Your task to perform on an android device: allow notifications from all sites in the chrome app Image 0: 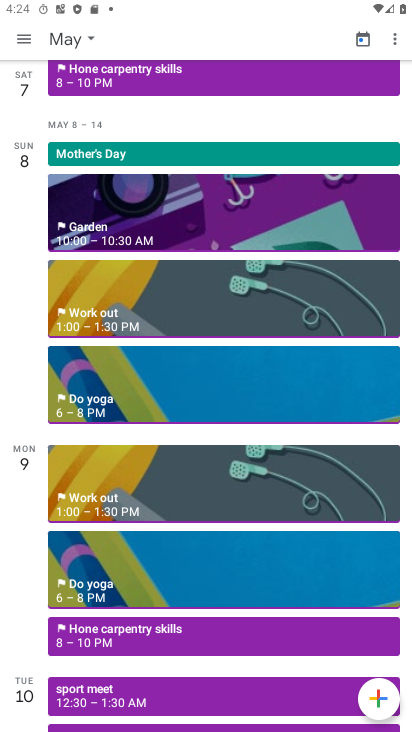
Step 0: press home button
Your task to perform on an android device: allow notifications from all sites in the chrome app Image 1: 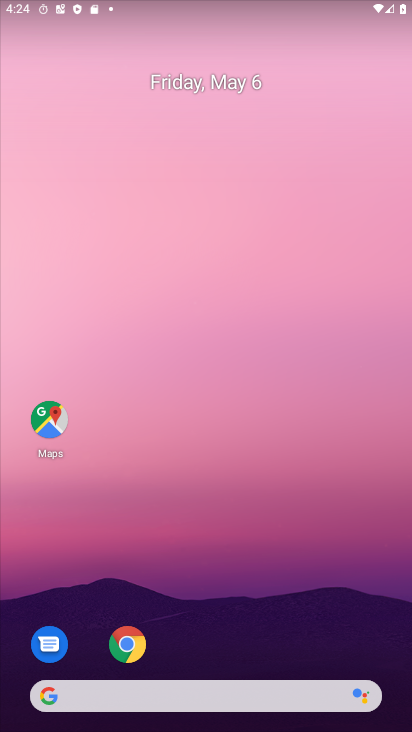
Step 1: drag from (339, 639) to (143, 103)
Your task to perform on an android device: allow notifications from all sites in the chrome app Image 2: 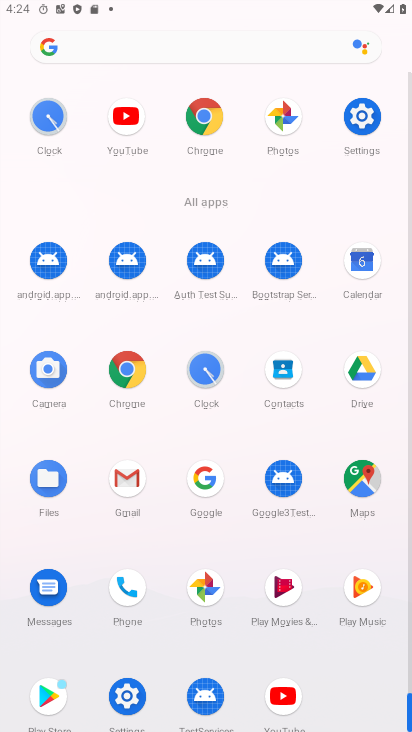
Step 2: click (197, 121)
Your task to perform on an android device: allow notifications from all sites in the chrome app Image 3: 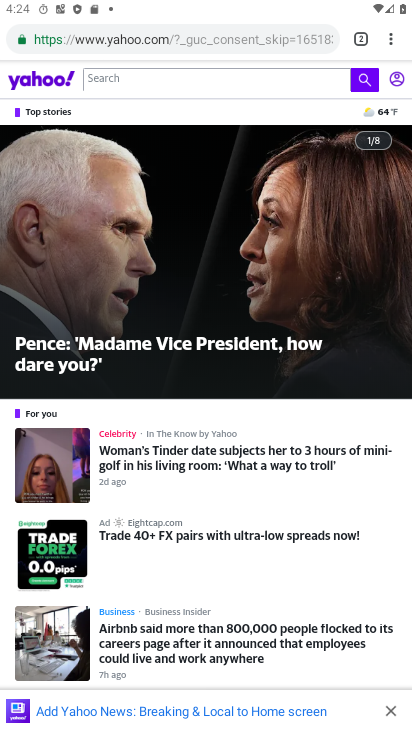
Step 3: drag from (391, 38) to (244, 504)
Your task to perform on an android device: allow notifications from all sites in the chrome app Image 4: 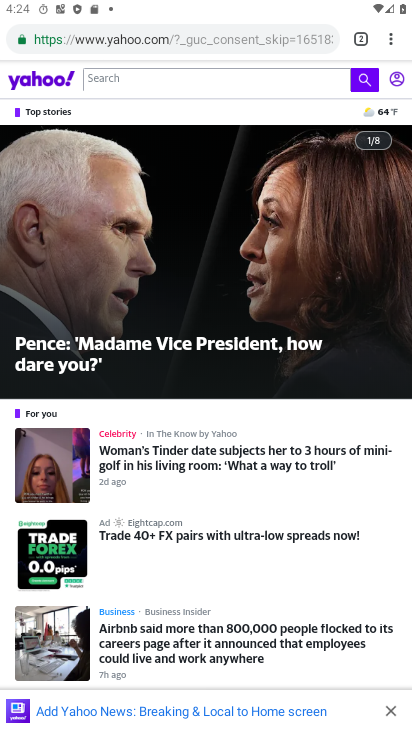
Step 4: click (241, 503)
Your task to perform on an android device: allow notifications from all sites in the chrome app Image 5: 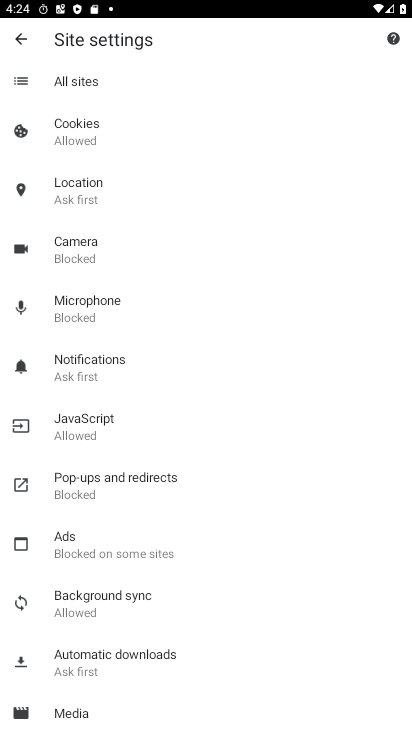
Step 5: click (69, 69)
Your task to perform on an android device: allow notifications from all sites in the chrome app Image 6: 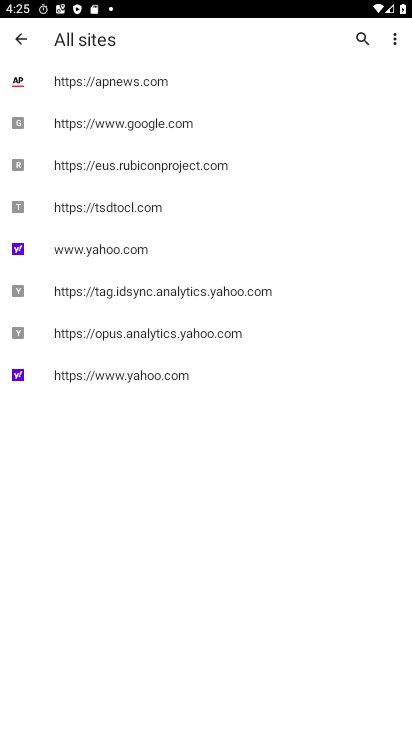
Step 6: click (87, 72)
Your task to perform on an android device: allow notifications from all sites in the chrome app Image 7: 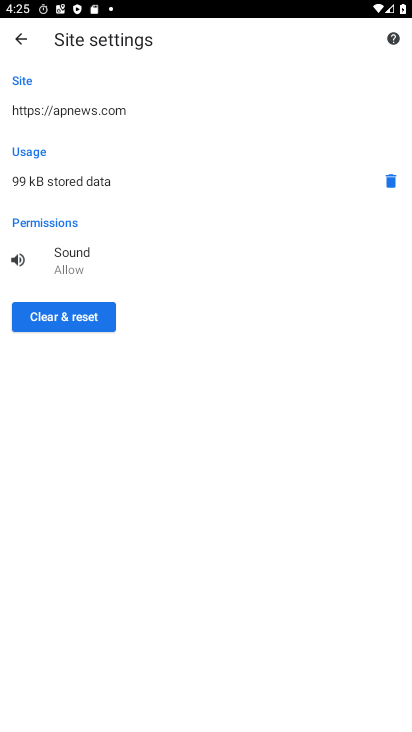
Step 7: click (14, 37)
Your task to perform on an android device: allow notifications from all sites in the chrome app Image 8: 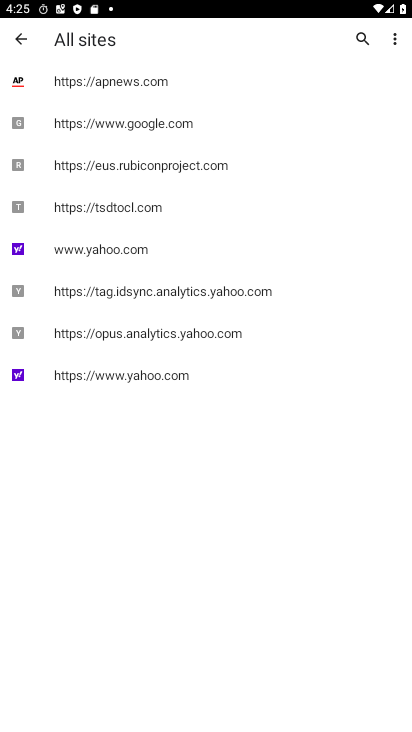
Step 8: task complete